Your task to perform on an android device: See recent photos Image 0: 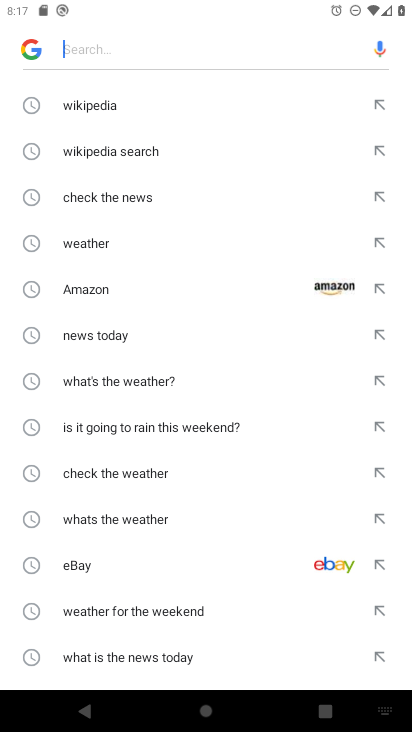
Step 0: press home button
Your task to perform on an android device: See recent photos Image 1: 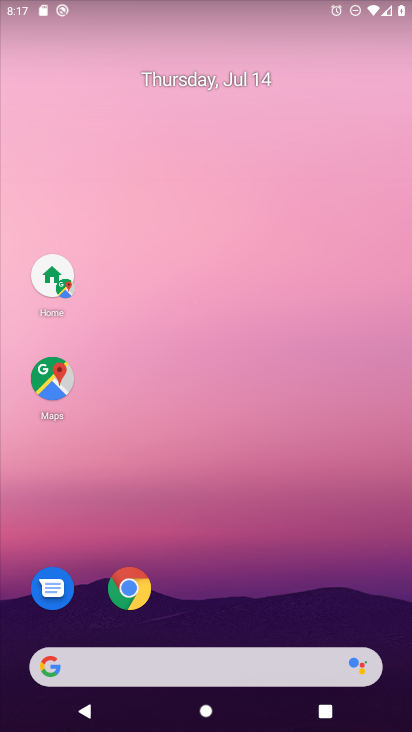
Step 1: drag from (53, 692) to (294, 55)
Your task to perform on an android device: See recent photos Image 2: 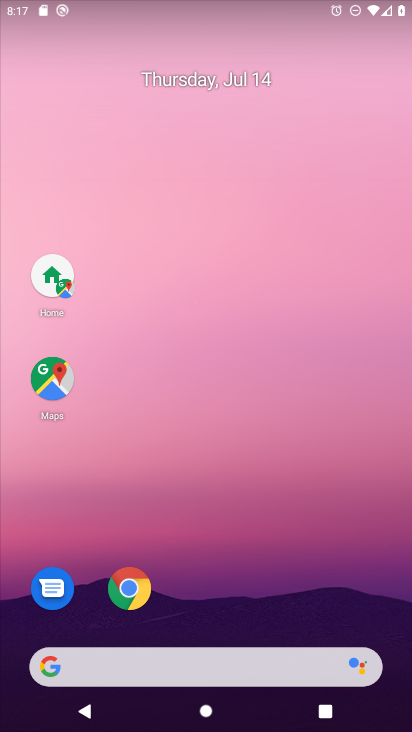
Step 2: drag from (101, 586) to (304, 79)
Your task to perform on an android device: See recent photos Image 3: 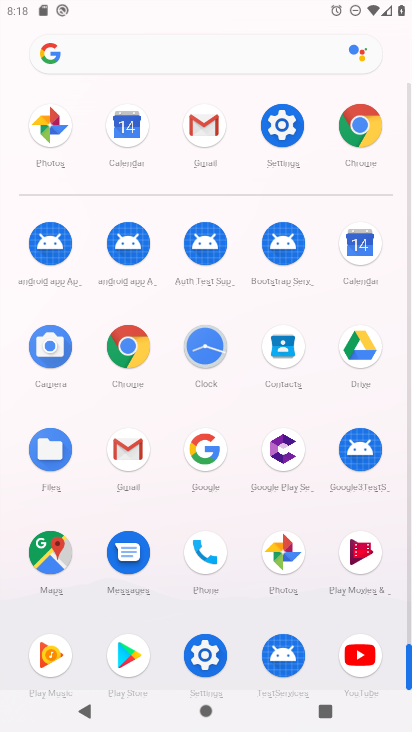
Step 3: click (289, 541)
Your task to perform on an android device: See recent photos Image 4: 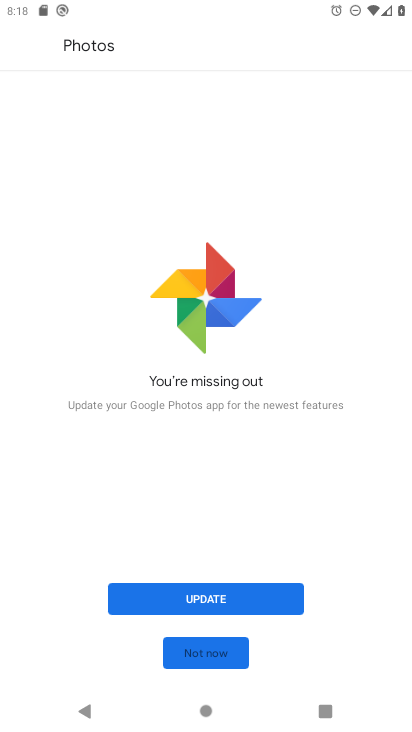
Step 4: click (209, 666)
Your task to perform on an android device: See recent photos Image 5: 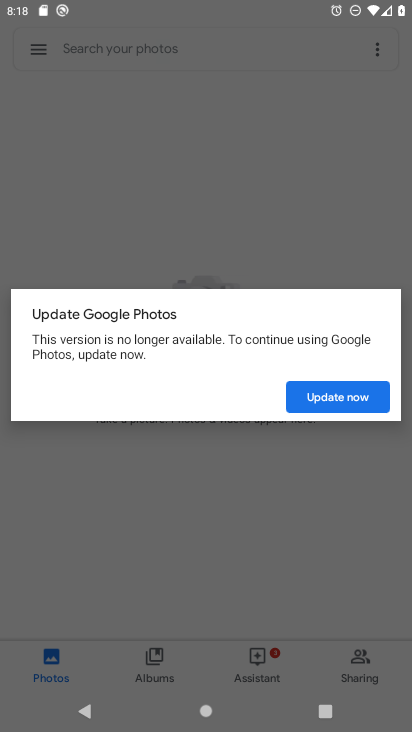
Step 5: click (353, 399)
Your task to perform on an android device: See recent photos Image 6: 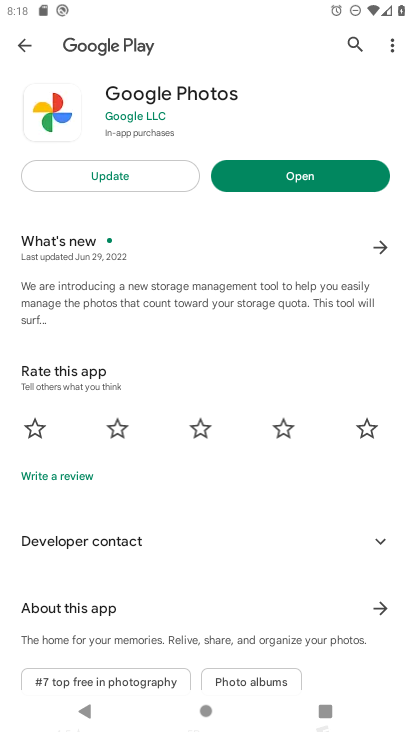
Step 6: click (305, 179)
Your task to perform on an android device: See recent photos Image 7: 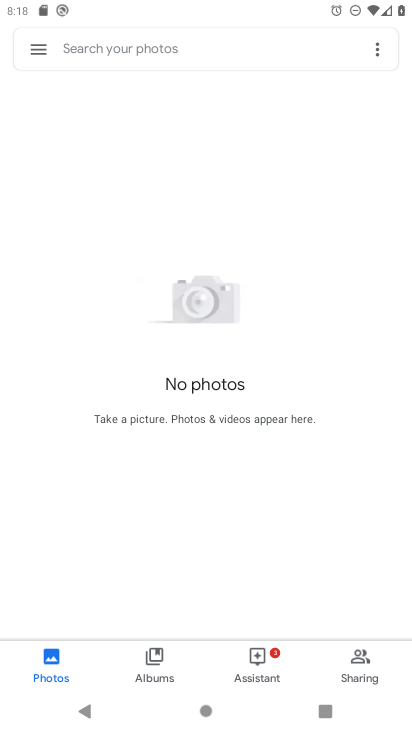
Step 7: task complete